Your task to perform on an android device: What's the weather like in San Francisco? Image 0: 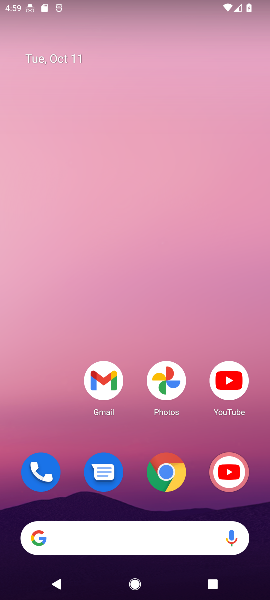
Step 0: click (161, 465)
Your task to perform on an android device: What's the weather like in San Francisco? Image 1: 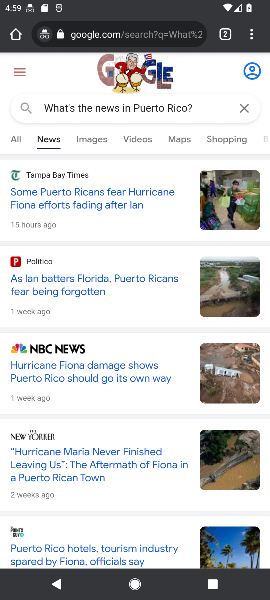
Step 1: click (242, 110)
Your task to perform on an android device: What's the weather like in San Francisco? Image 2: 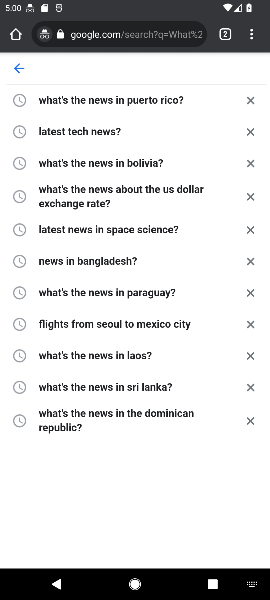
Step 2: type "weather like in San Francisco?"
Your task to perform on an android device: What's the weather like in San Francisco? Image 3: 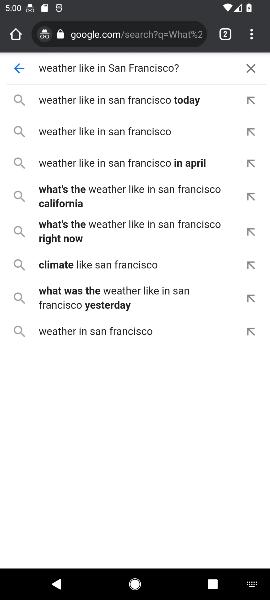
Step 3: click (172, 129)
Your task to perform on an android device: What's the weather like in San Francisco? Image 4: 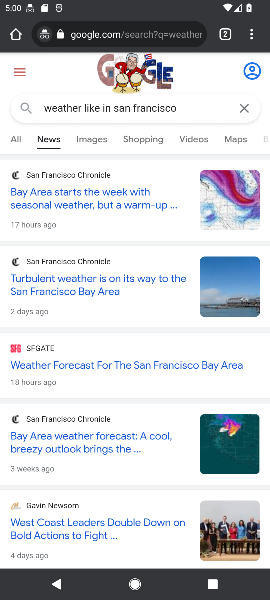
Step 4: click (22, 146)
Your task to perform on an android device: What's the weather like in San Francisco? Image 5: 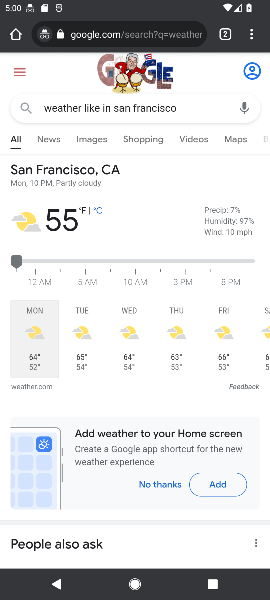
Step 5: task complete